Your task to perform on an android device: Open eBay Image 0: 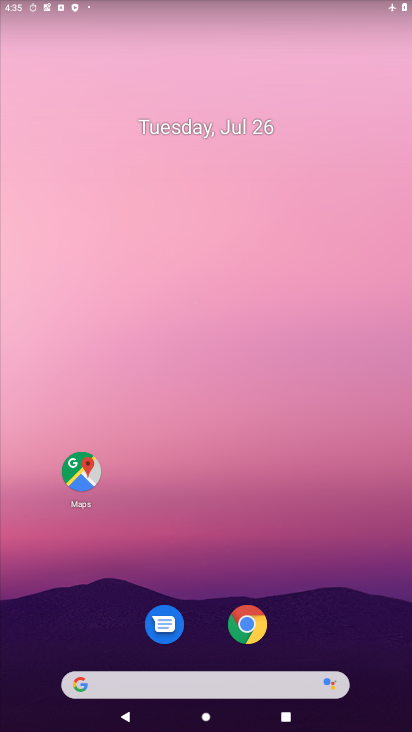
Step 0: drag from (302, 677) to (346, 15)
Your task to perform on an android device: Open eBay Image 1: 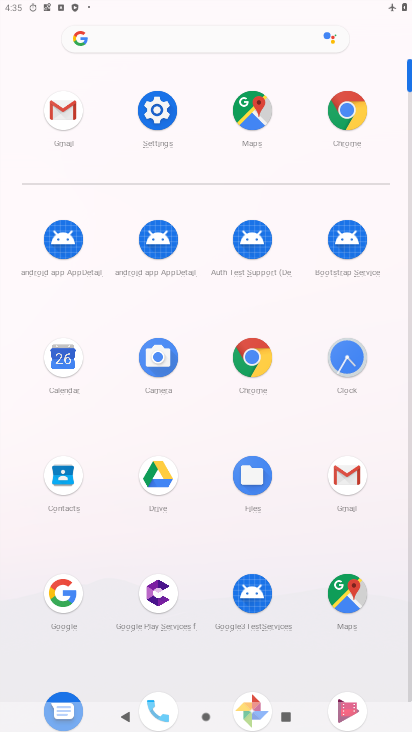
Step 1: click (255, 369)
Your task to perform on an android device: Open eBay Image 2: 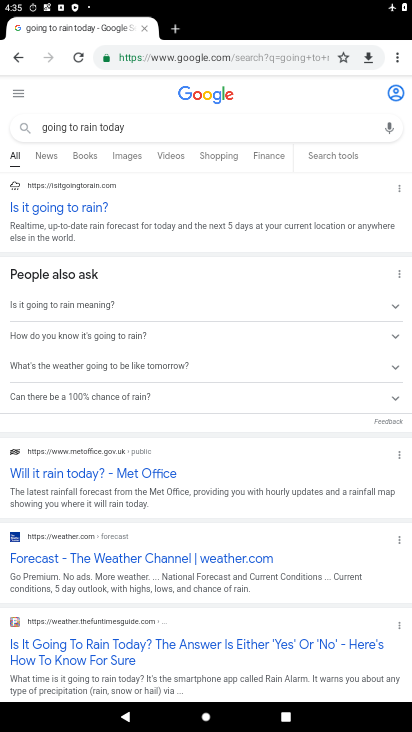
Step 2: click (247, 49)
Your task to perform on an android device: Open eBay Image 3: 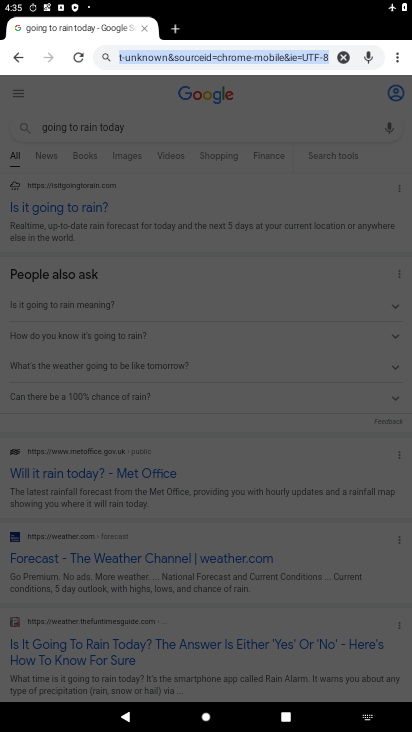
Step 3: type "ebay"
Your task to perform on an android device: Open eBay Image 4: 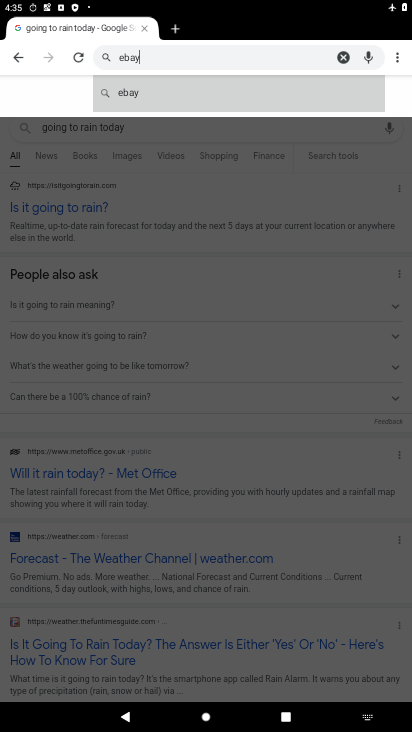
Step 4: click (129, 94)
Your task to perform on an android device: Open eBay Image 5: 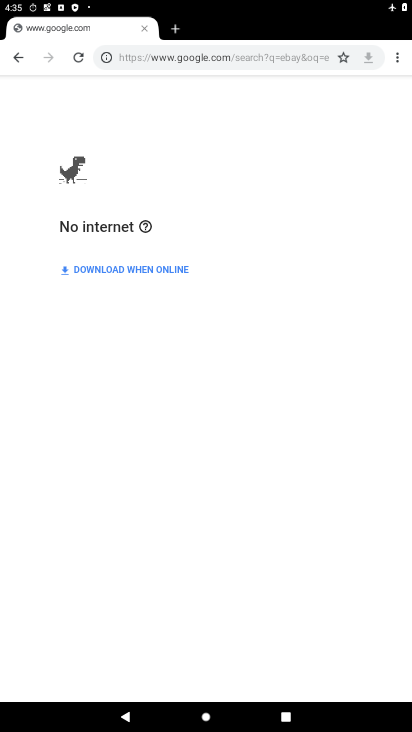
Step 5: task complete